Your task to perform on an android device: Go to CNN.com Image 0: 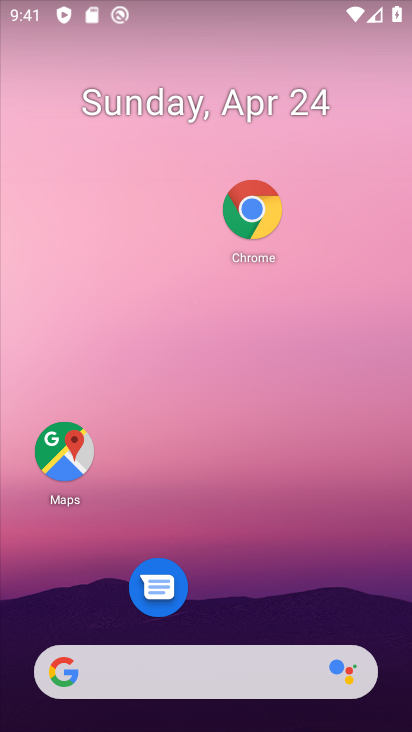
Step 0: press home button
Your task to perform on an android device: Go to CNN.com Image 1: 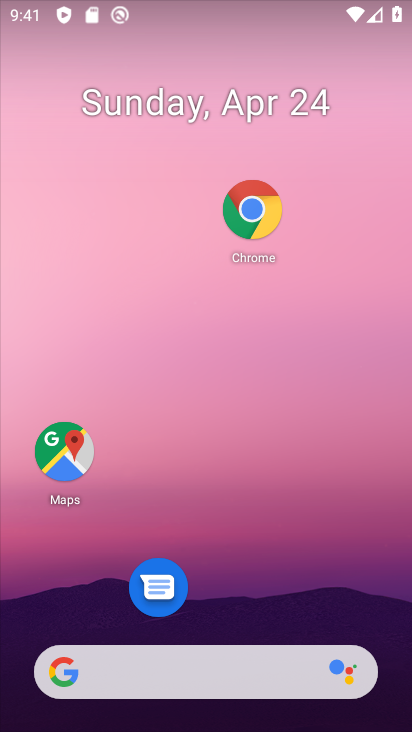
Step 1: drag from (216, 622) to (225, 41)
Your task to perform on an android device: Go to CNN.com Image 2: 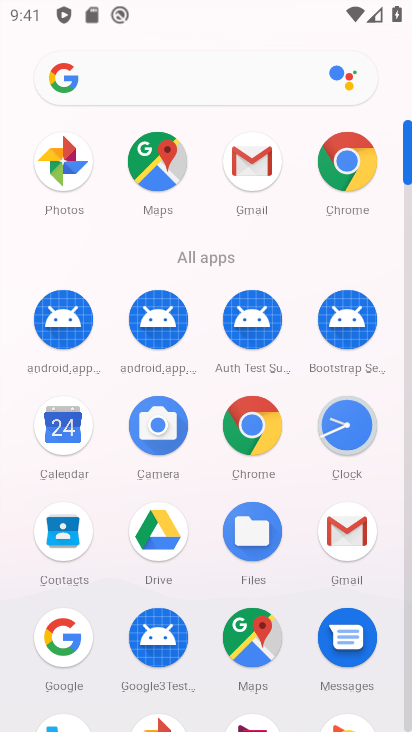
Step 2: click (344, 152)
Your task to perform on an android device: Go to CNN.com Image 3: 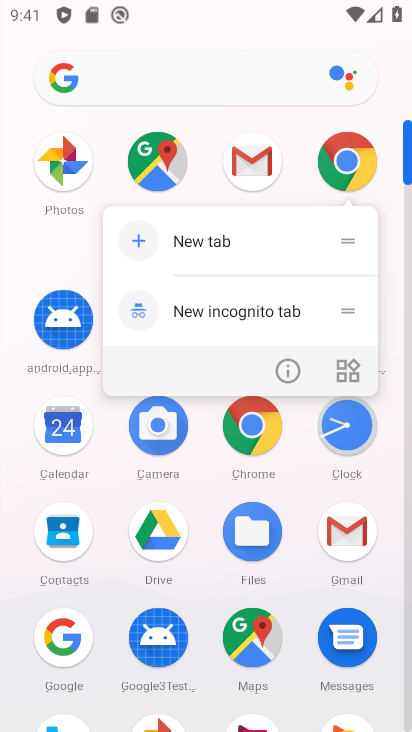
Step 3: click (344, 152)
Your task to perform on an android device: Go to CNN.com Image 4: 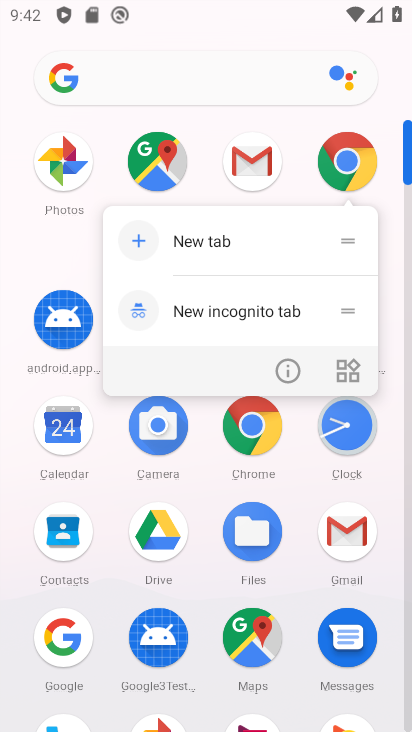
Step 4: click (247, 417)
Your task to perform on an android device: Go to CNN.com Image 5: 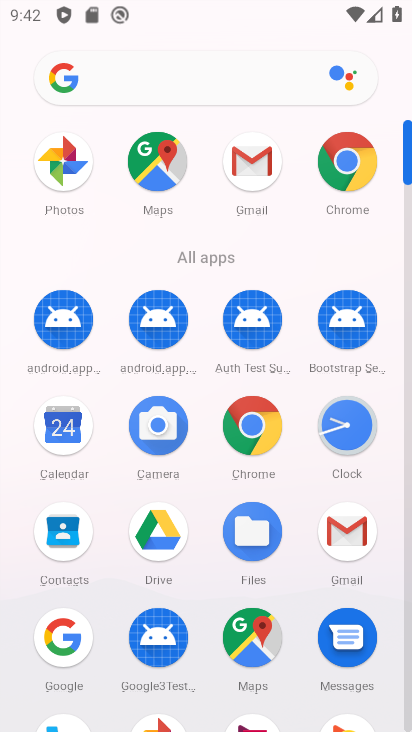
Step 5: click (248, 423)
Your task to perform on an android device: Go to CNN.com Image 6: 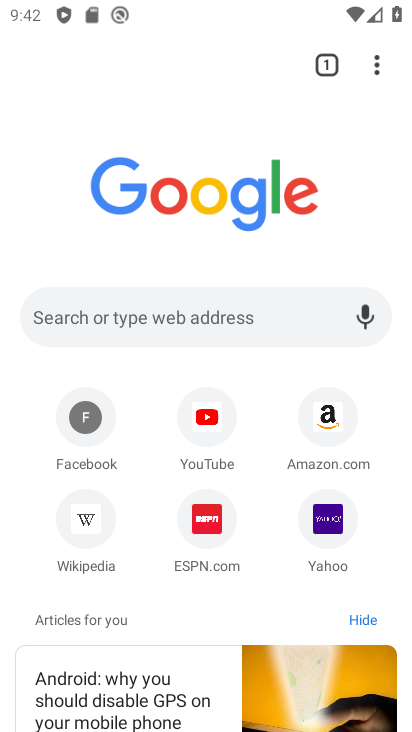
Step 6: click (116, 305)
Your task to perform on an android device: Go to CNN.com Image 7: 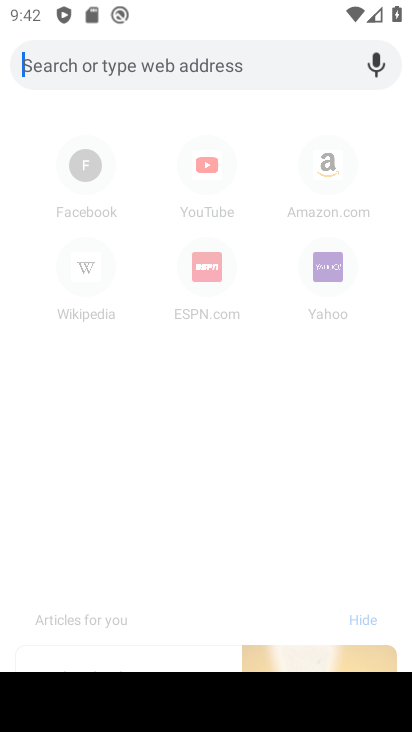
Step 7: type "cnn.com"
Your task to perform on an android device: Go to CNN.com Image 8: 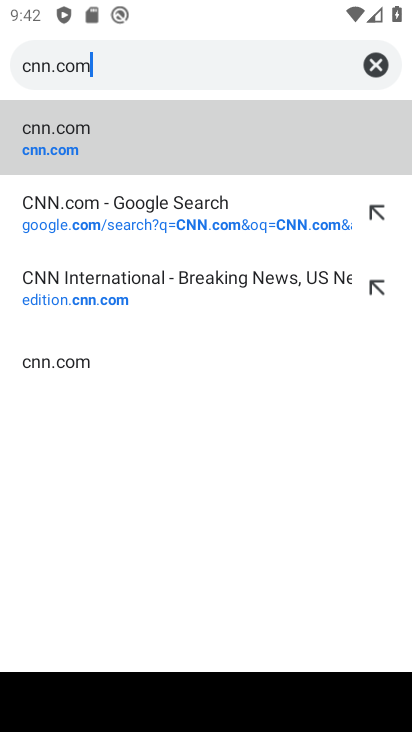
Step 8: click (104, 211)
Your task to perform on an android device: Go to CNN.com Image 9: 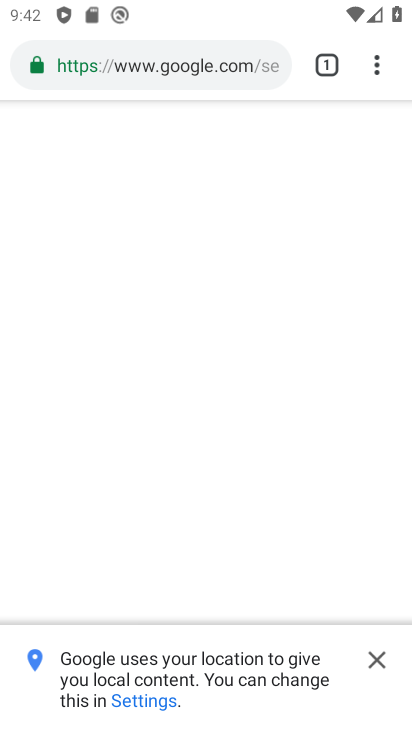
Step 9: click (374, 657)
Your task to perform on an android device: Go to CNN.com Image 10: 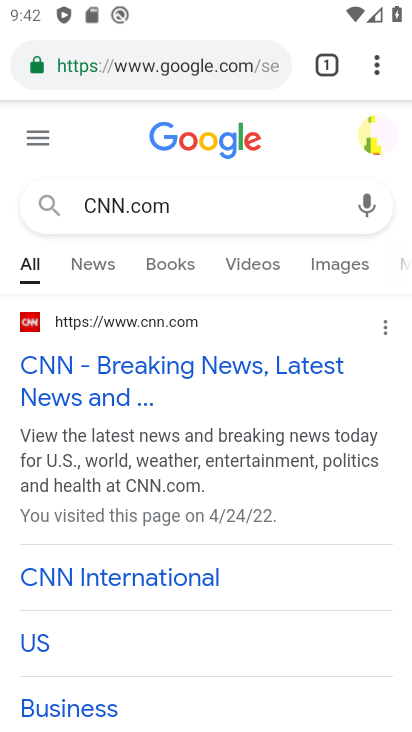
Step 10: click (156, 366)
Your task to perform on an android device: Go to CNN.com Image 11: 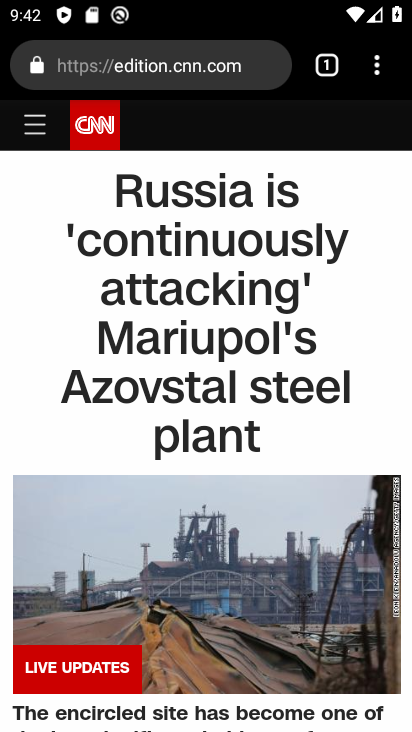
Step 11: task complete